Your task to perform on an android device: toggle show notifications on the lock screen Image 0: 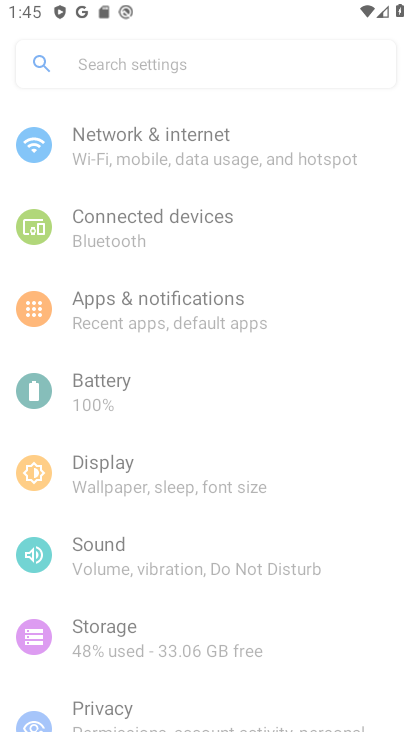
Step 0: press home button
Your task to perform on an android device: toggle show notifications on the lock screen Image 1: 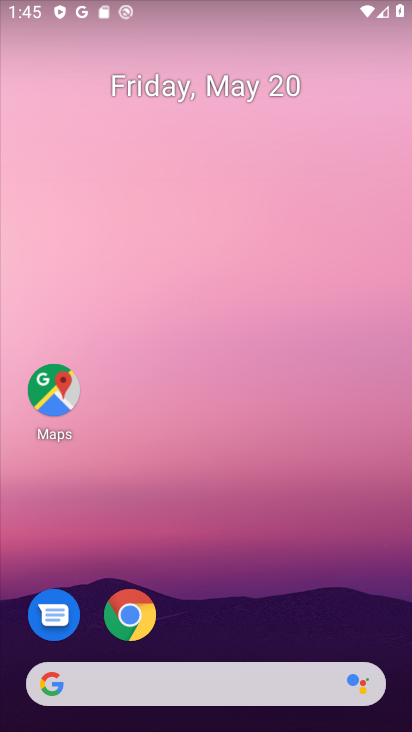
Step 1: drag from (360, 605) to (220, 41)
Your task to perform on an android device: toggle show notifications on the lock screen Image 2: 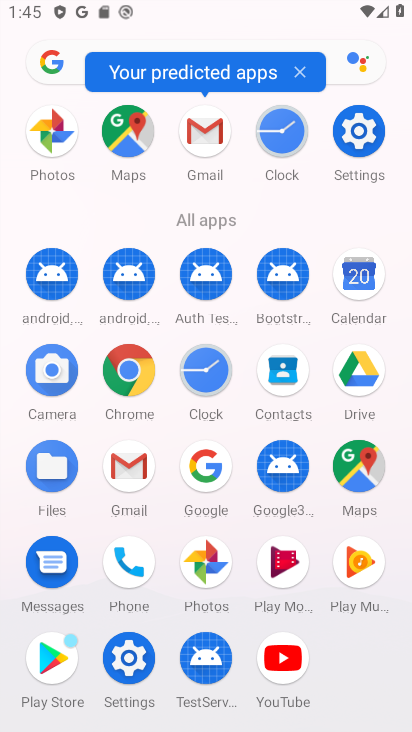
Step 2: click (365, 131)
Your task to perform on an android device: toggle show notifications on the lock screen Image 3: 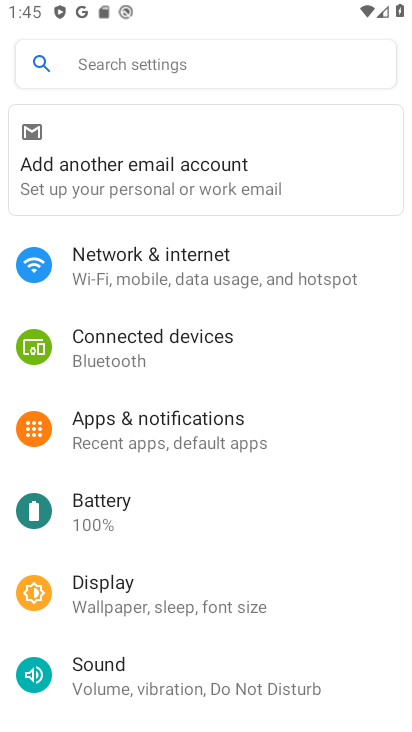
Step 3: click (210, 416)
Your task to perform on an android device: toggle show notifications on the lock screen Image 4: 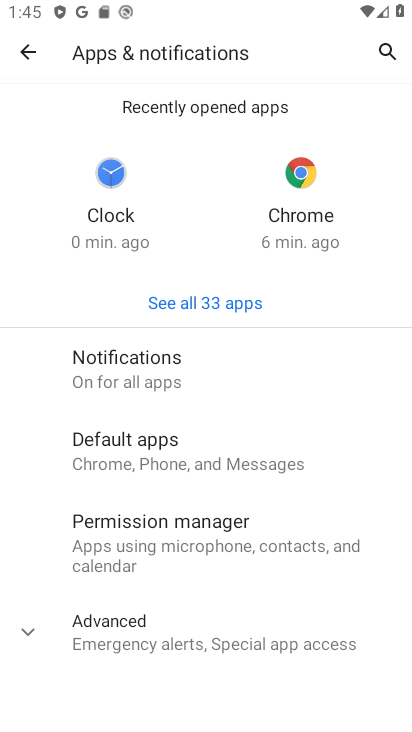
Step 4: click (197, 369)
Your task to perform on an android device: toggle show notifications on the lock screen Image 5: 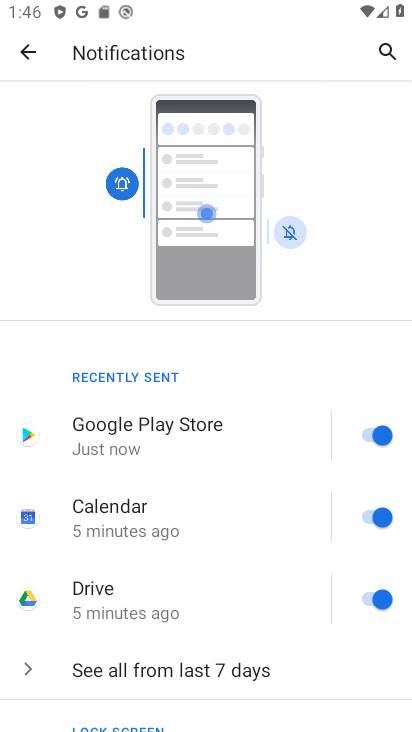
Step 5: drag from (232, 622) to (259, 212)
Your task to perform on an android device: toggle show notifications on the lock screen Image 6: 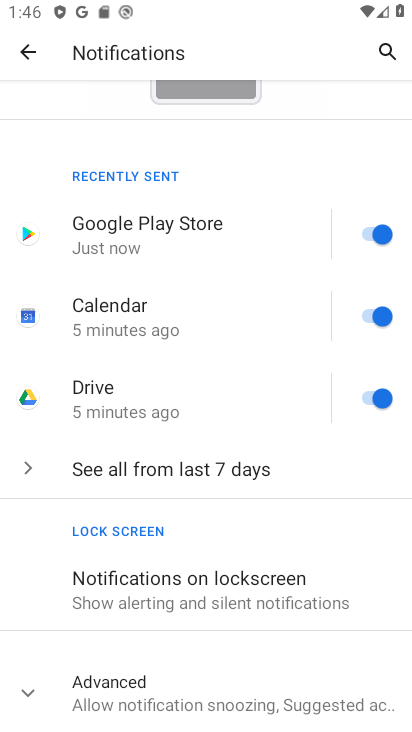
Step 6: click (295, 589)
Your task to perform on an android device: toggle show notifications on the lock screen Image 7: 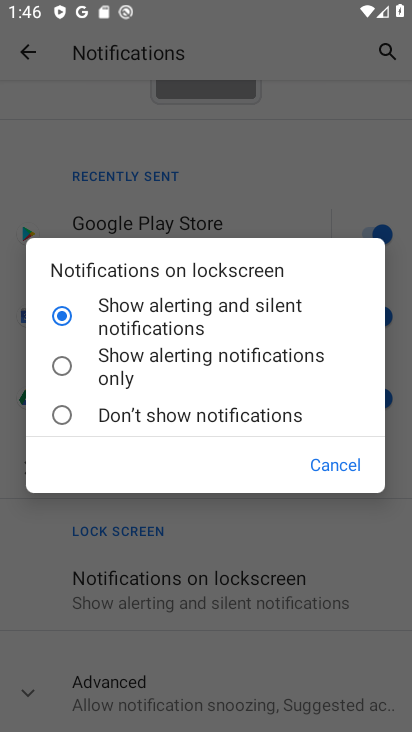
Step 7: click (217, 341)
Your task to perform on an android device: toggle show notifications on the lock screen Image 8: 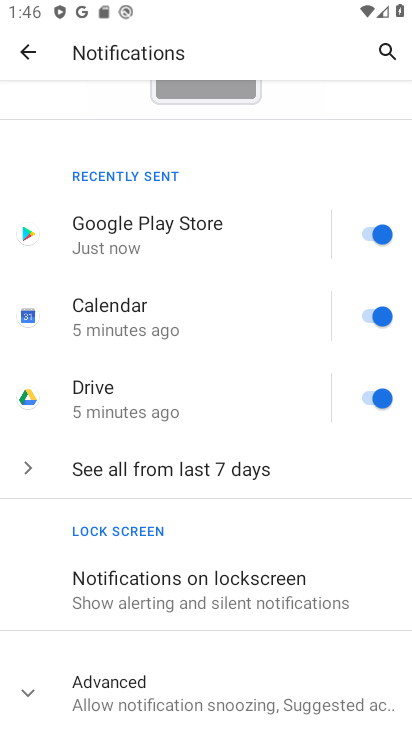
Step 8: task complete